Your task to perform on an android device: allow notifications from all sites in the chrome app Image 0: 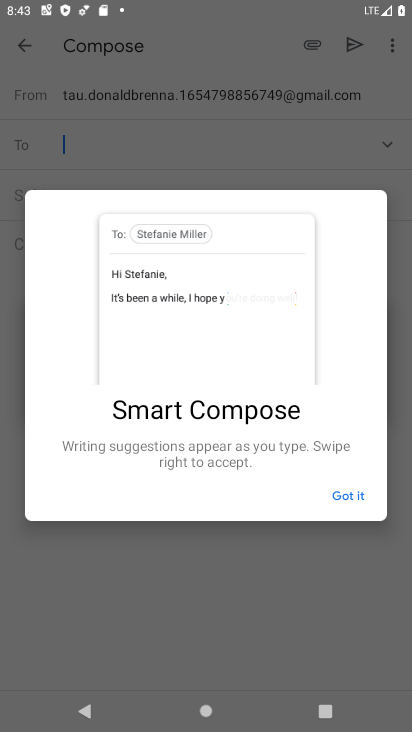
Step 0: press home button
Your task to perform on an android device: allow notifications from all sites in the chrome app Image 1: 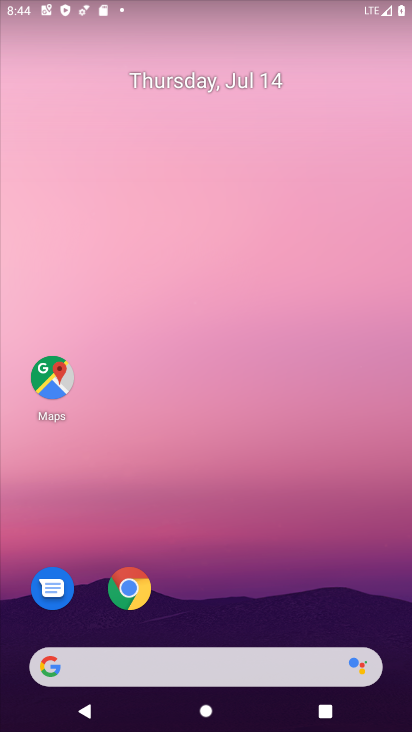
Step 1: drag from (373, 597) to (287, 0)
Your task to perform on an android device: allow notifications from all sites in the chrome app Image 2: 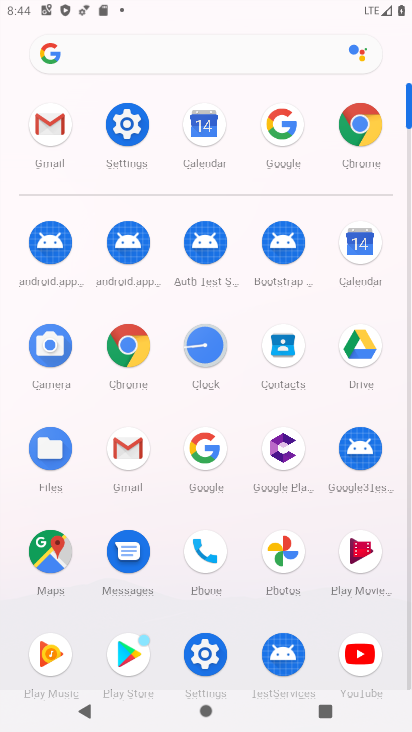
Step 2: click (355, 127)
Your task to perform on an android device: allow notifications from all sites in the chrome app Image 3: 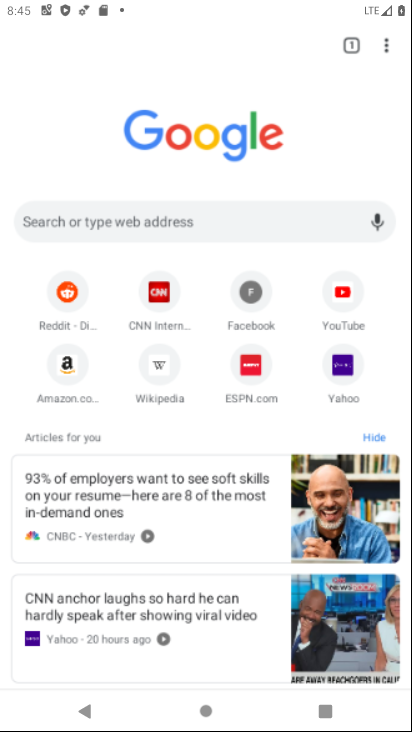
Step 3: click (387, 41)
Your task to perform on an android device: allow notifications from all sites in the chrome app Image 4: 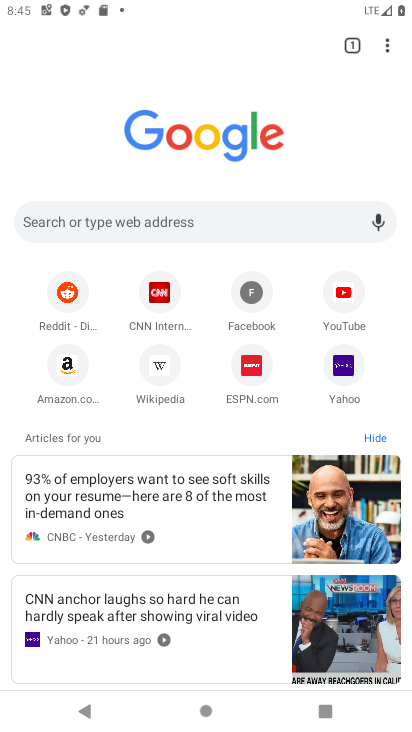
Step 4: click (390, 46)
Your task to perform on an android device: allow notifications from all sites in the chrome app Image 5: 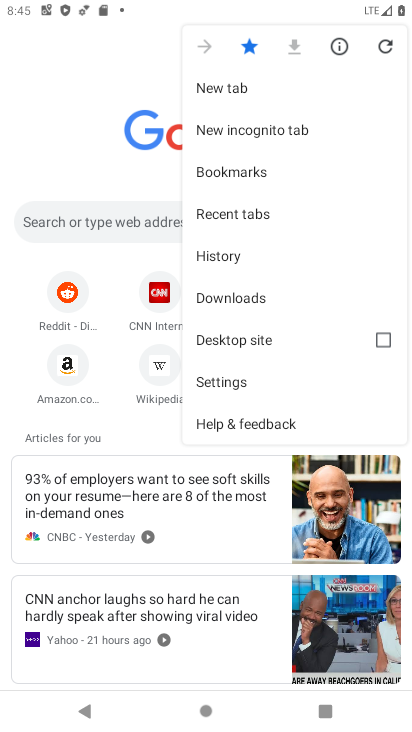
Step 5: click (228, 371)
Your task to perform on an android device: allow notifications from all sites in the chrome app Image 6: 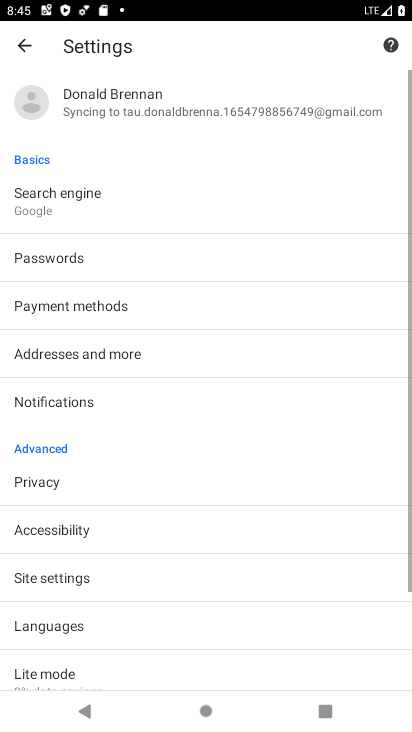
Step 6: click (84, 397)
Your task to perform on an android device: allow notifications from all sites in the chrome app Image 7: 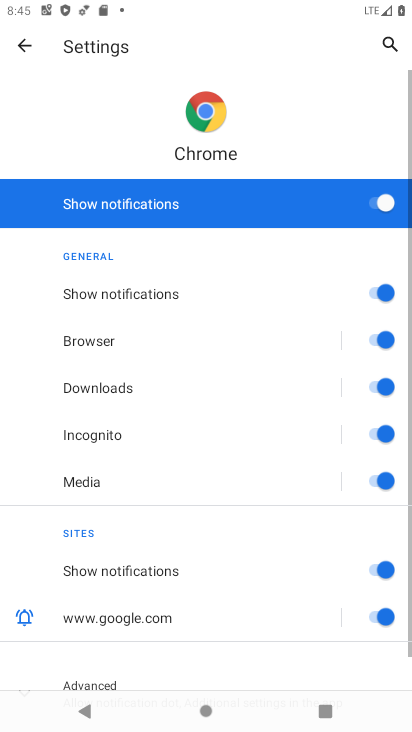
Step 7: task complete